Your task to perform on an android device: Open Android settings Image 0: 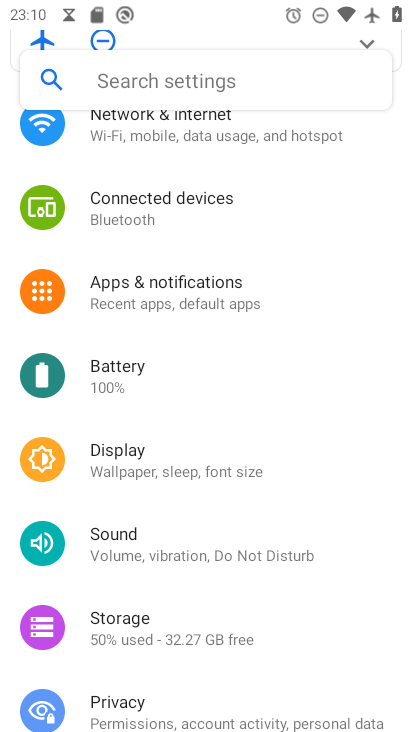
Step 0: press home button
Your task to perform on an android device: Open Android settings Image 1: 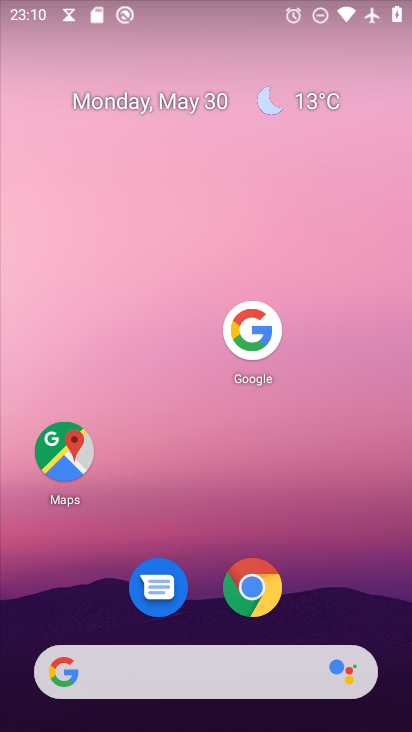
Step 1: drag from (221, 674) to (271, 87)
Your task to perform on an android device: Open Android settings Image 2: 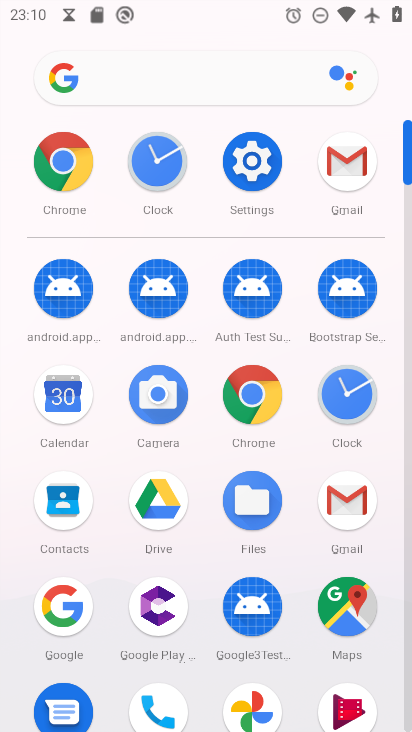
Step 2: click (257, 174)
Your task to perform on an android device: Open Android settings Image 3: 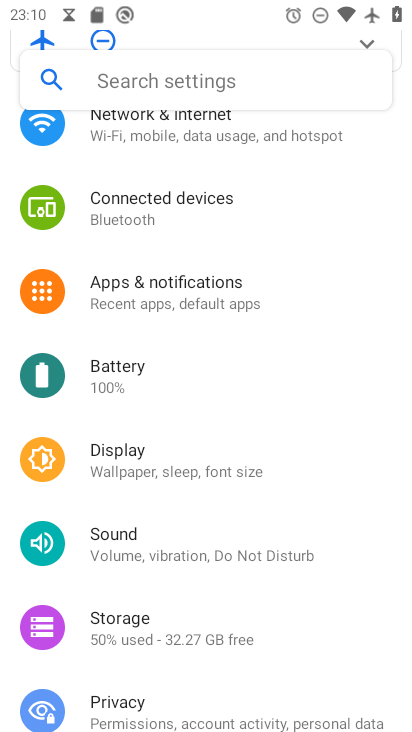
Step 3: task complete